Your task to perform on an android device: Open location settings Image 0: 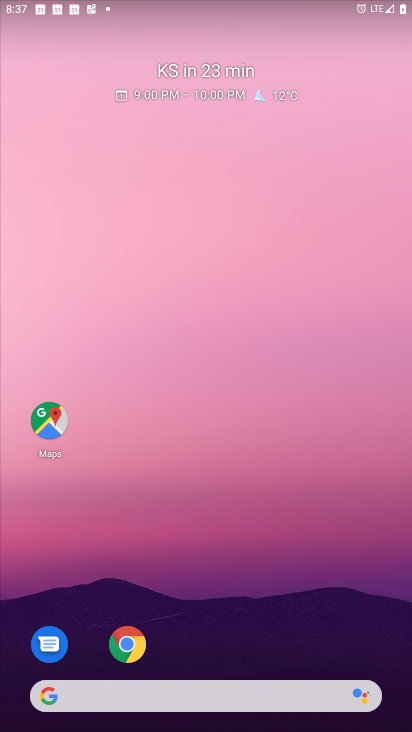
Step 0: drag from (368, 631) to (297, 161)
Your task to perform on an android device: Open location settings Image 1: 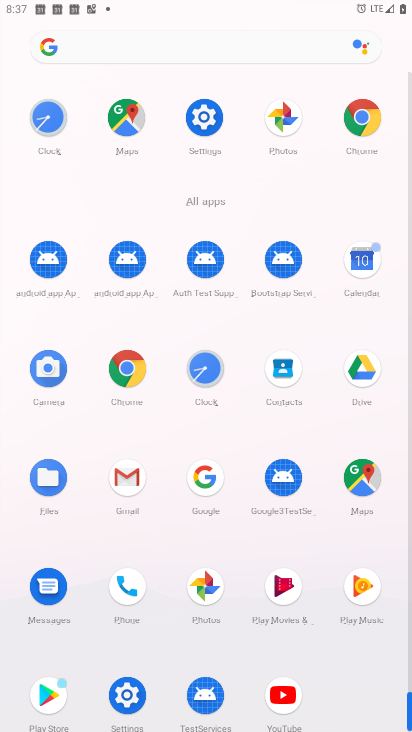
Step 1: click (125, 693)
Your task to perform on an android device: Open location settings Image 2: 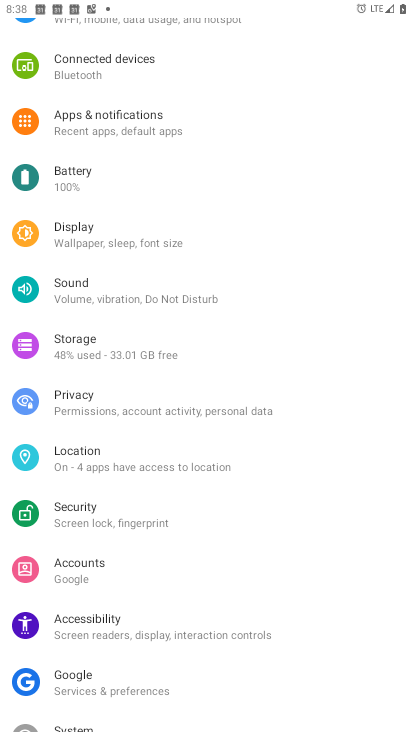
Step 2: click (64, 460)
Your task to perform on an android device: Open location settings Image 3: 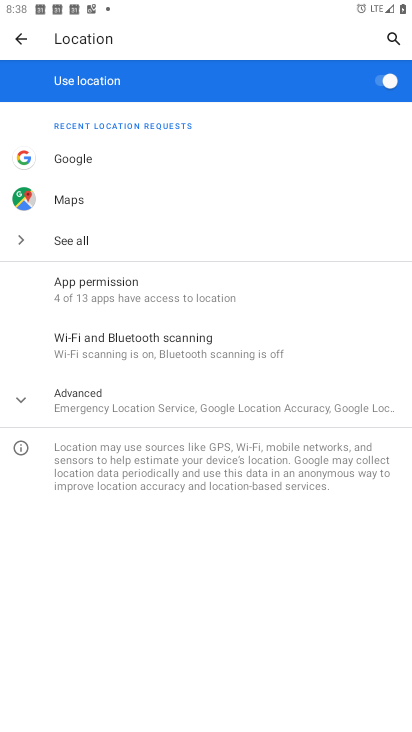
Step 3: click (18, 400)
Your task to perform on an android device: Open location settings Image 4: 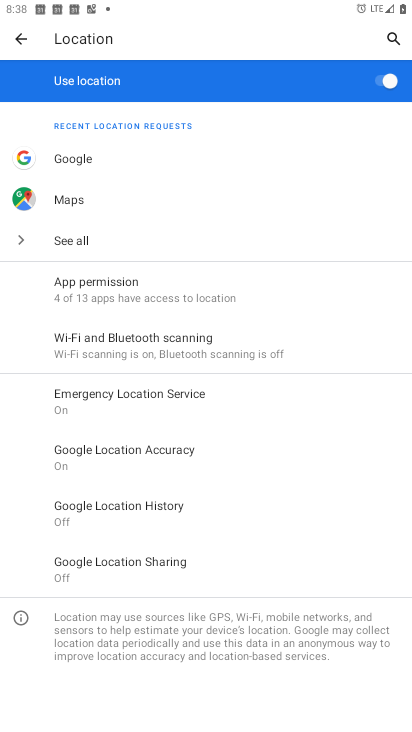
Step 4: task complete